Your task to perform on an android device: toggle sleep mode Image 0: 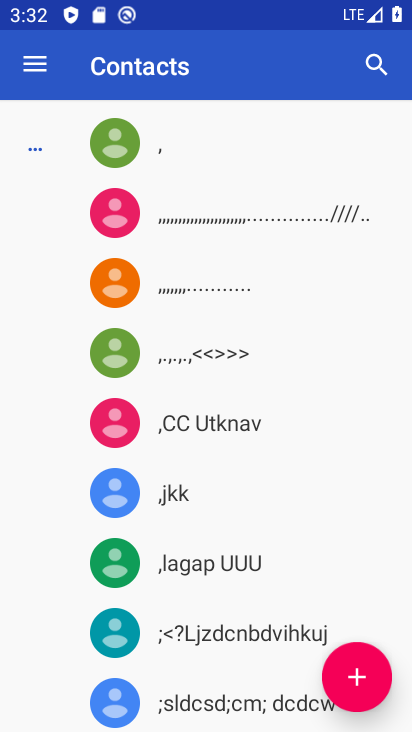
Step 0: press home button
Your task to perform on an android device: toggle sleep mode Image 1: 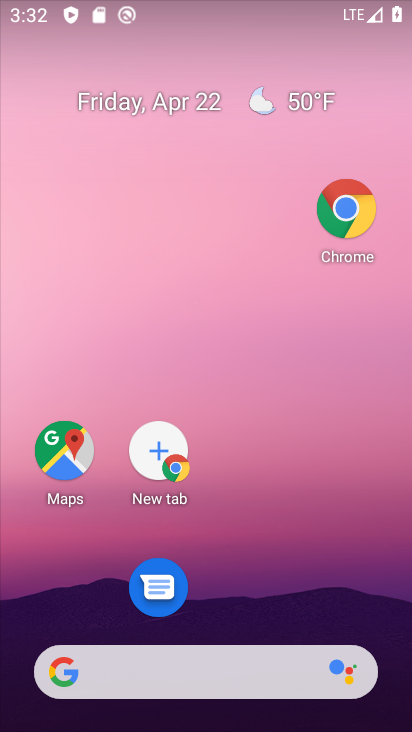
Step 1: drag from (257, 587) to (236, 107)
Your task to perform on an android device: toggle sleep mode Image 2: 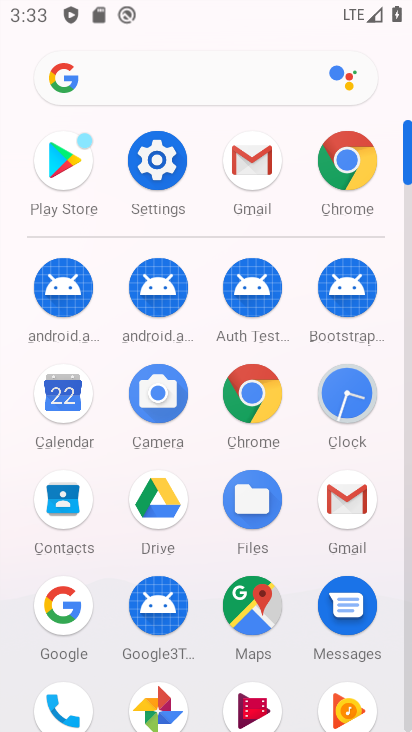
Step 2: click (152, 149)
Your task to perform on an android device: toggle sleep mode Image 3: 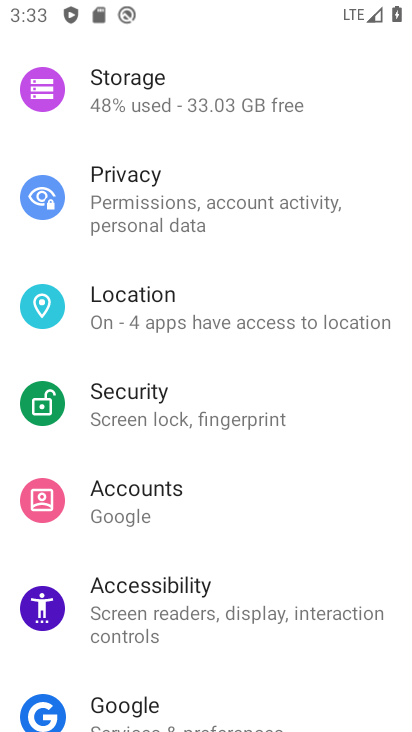
Step 3: task complete